Your task to perform on an android device: turn off sleep mode Image 0: 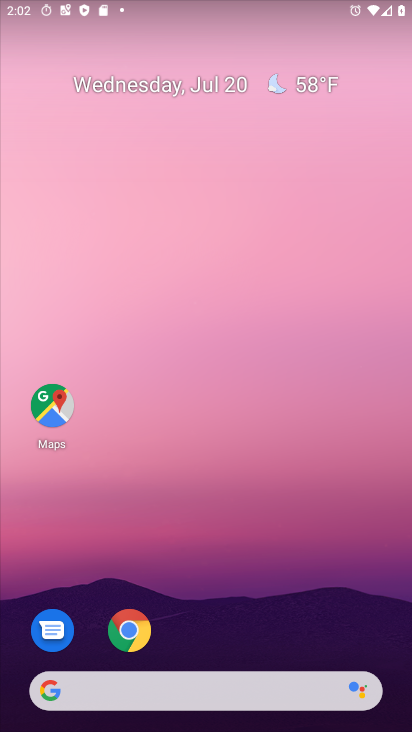
Step 0: press home button
Your task to perform on an android device: turn off sleep mode Image 1: 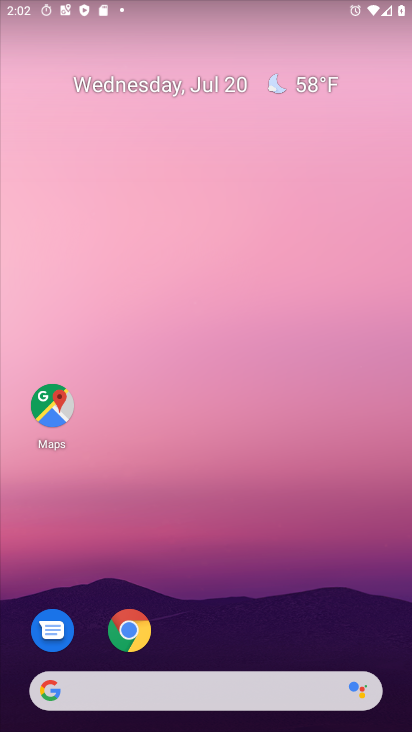
Step 1: drag from (171, 691) to (289, 135)
Your task to perform on an android device: turn off sleep mode Image 2: 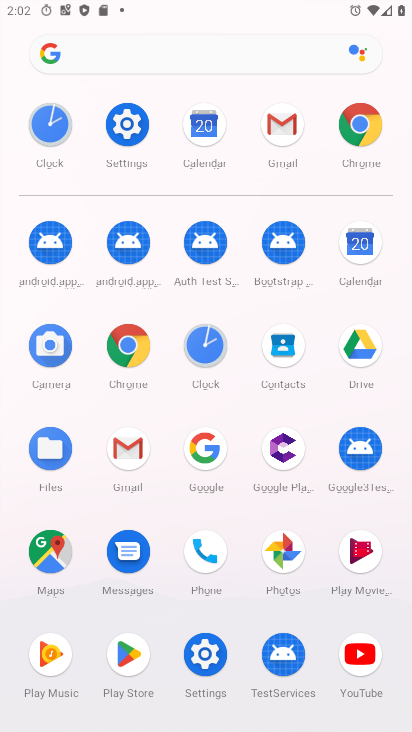
Step 2: click (128, 114)
Your task to perform on an android device: turn off sleep mode Image 3: 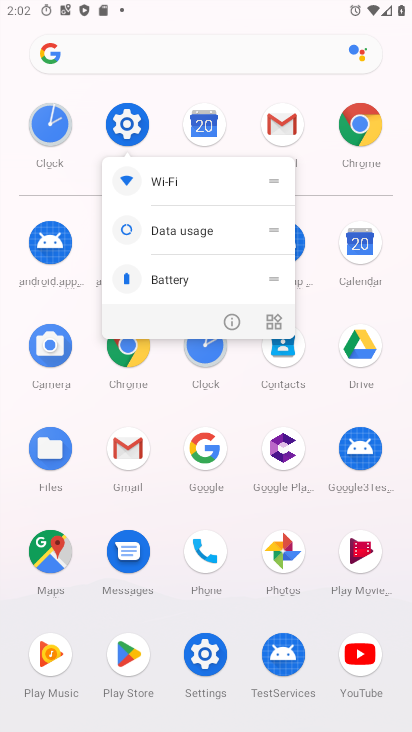
Step 3: click (126, 123)
Your task to perform on an android device: turn off sleep mode Image 4: 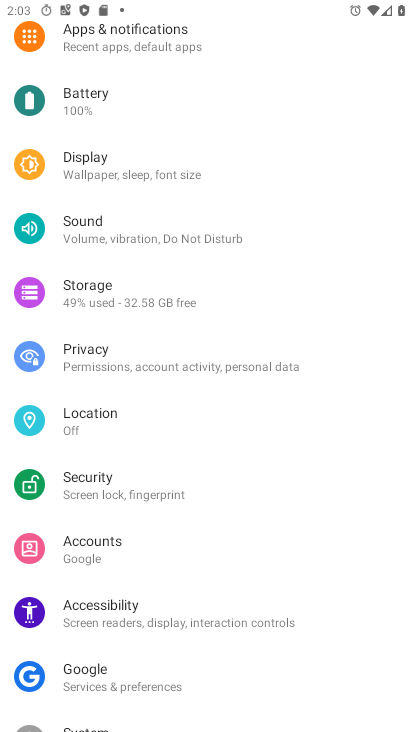
Step 4: click (130, 173)
Your task to perform on an android device: turn off sleep mode Image 5: 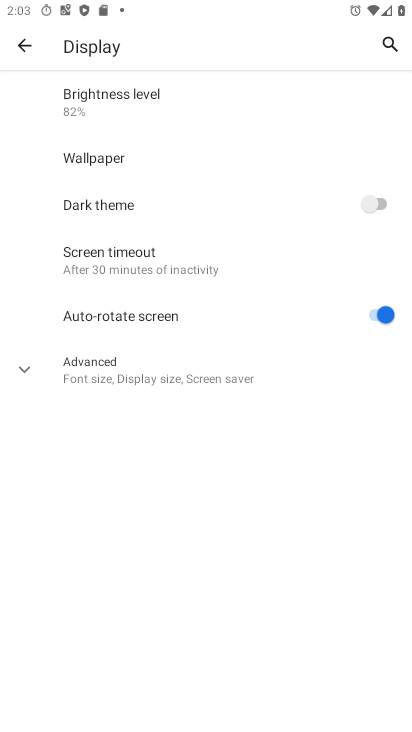
Step 5: task complete